Your task to perform on an android device: Show me the alarms in the clock app Image 0: 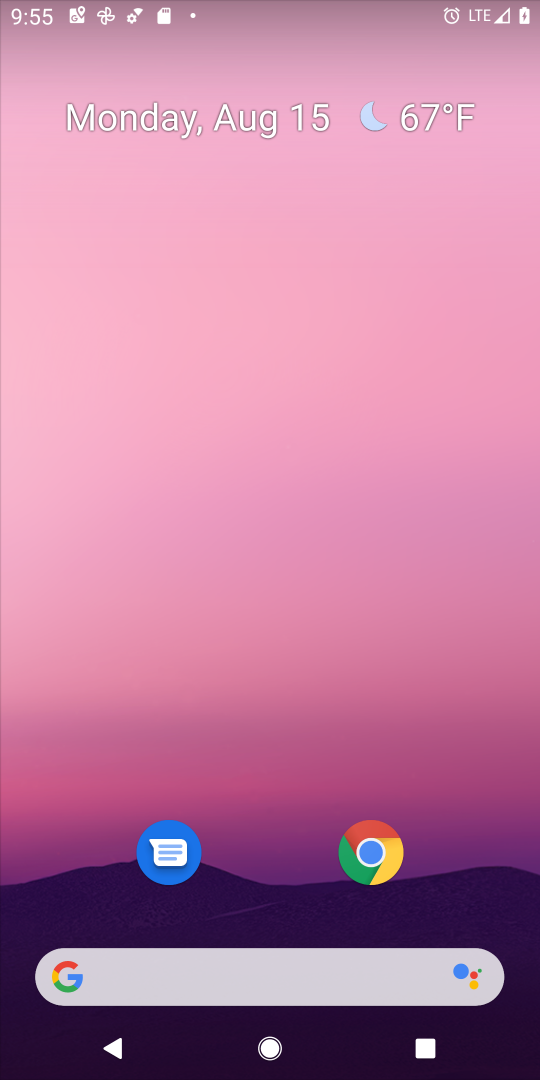
Step 0: drag from (322, 972) to (427, 118)
Your task to perform on an android device: Show me the alarms in the clock app Image 1: 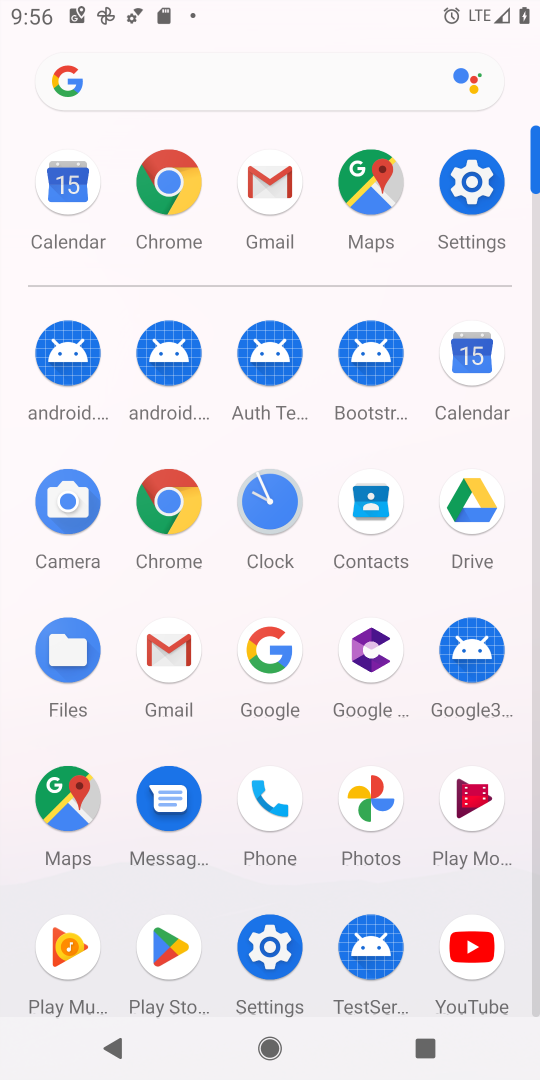
Step 1: click (267, 504)
Your task to perform on an android device: Show me the alarms in the clock app Image 2: 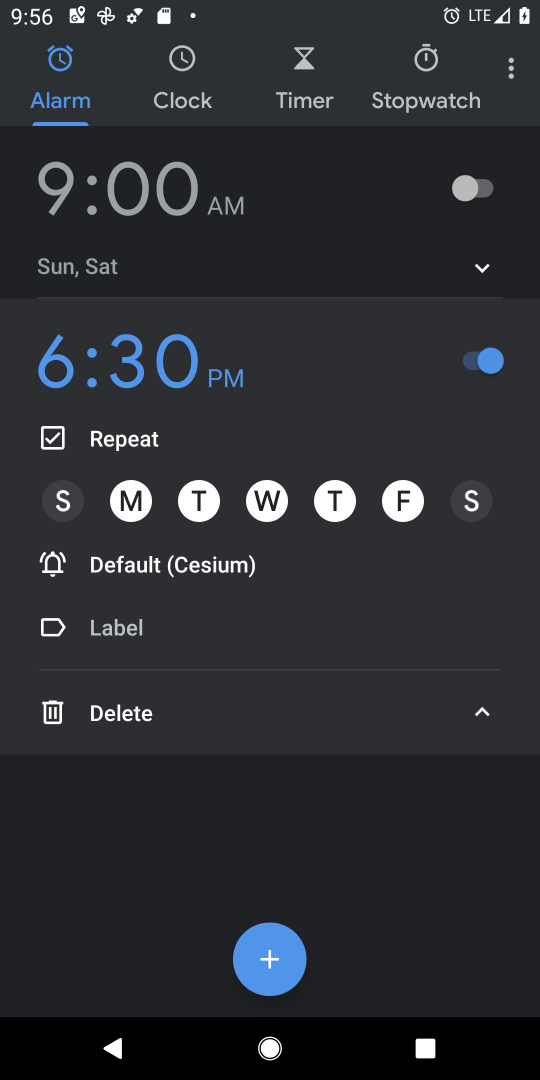
Step 2: click (484, 272)
Your task to perform on an android device: Show me the alarms in the clock app Image 3: 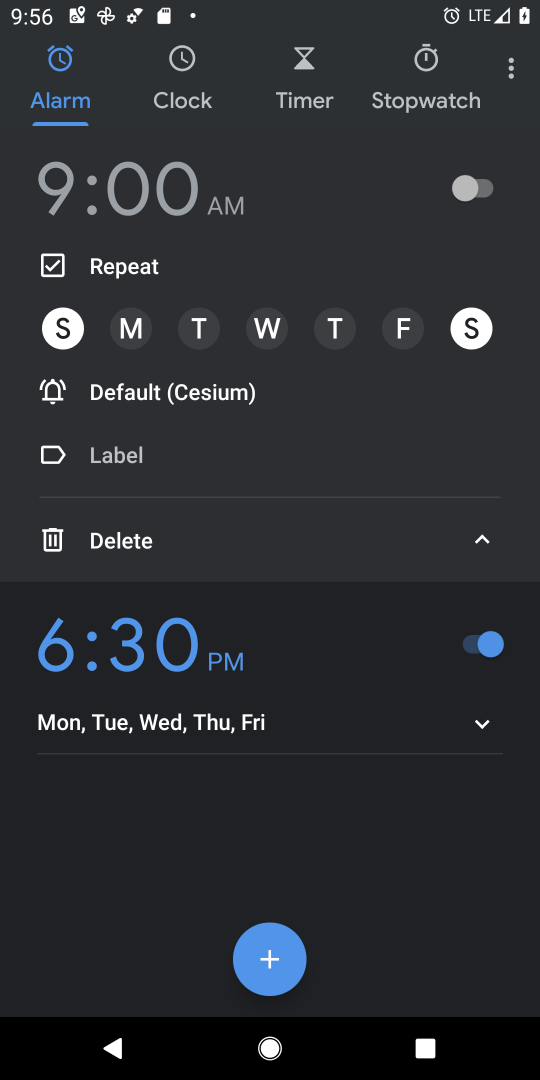
Step 3: click (192, 213)
Your task to perform on an android device: Show me the alarms in the clock app Image 4: 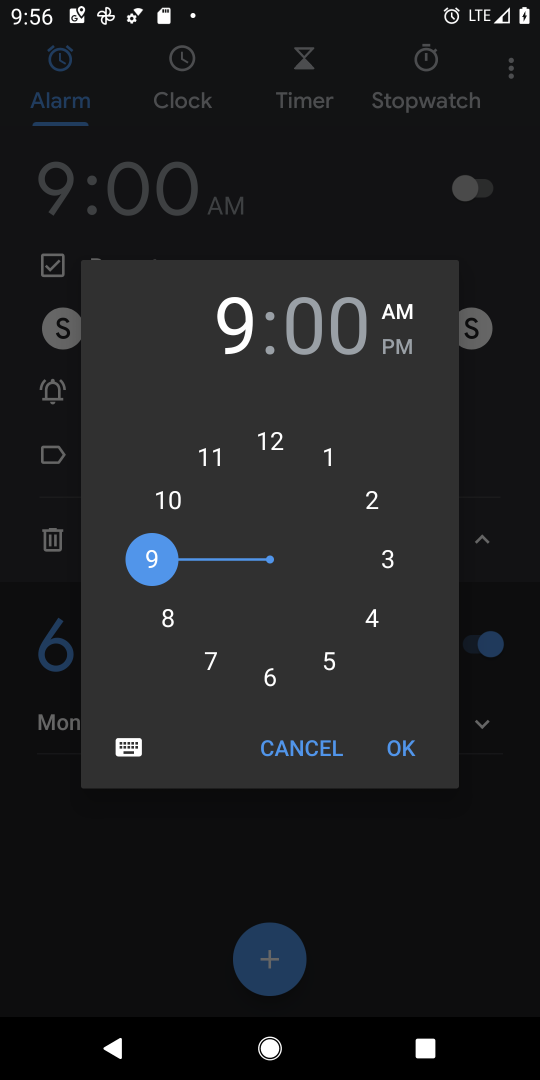
Step 4: click (288, 670)
Your task to perform on an android device: Show me the alarms in the clock app Image 5: 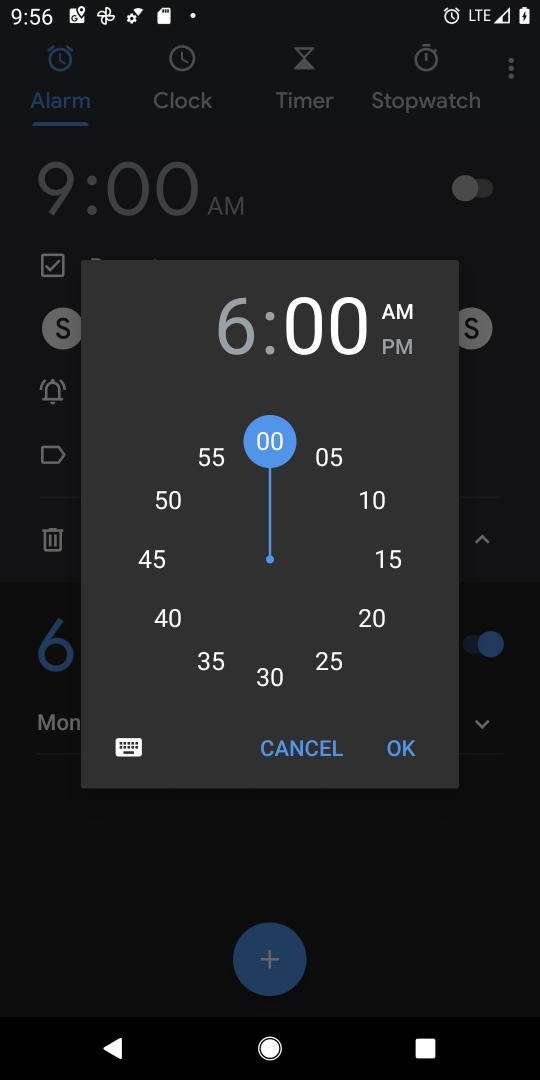
Step 5: click (397, 361)
Your task to perform on an android device: Show me the alarms in the clock app Image 6: 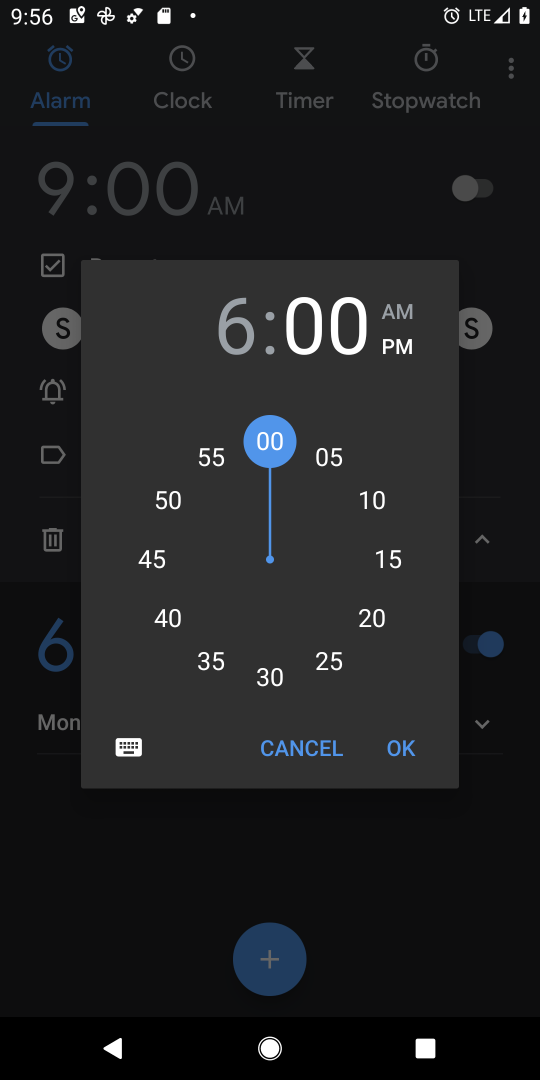
Step 6: click (380, 491)
Your task to perform on an android device: Show me the alarms in the clock app Image 7: 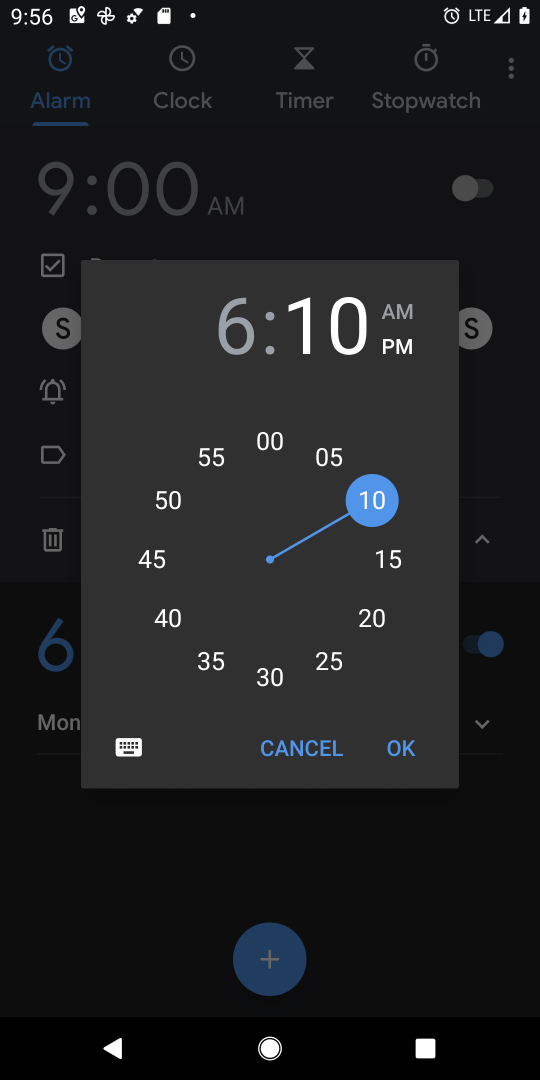
Step 7: click (418, 747)
Your task to perform on an android device: Show me the alarms in the clock app Image 8: 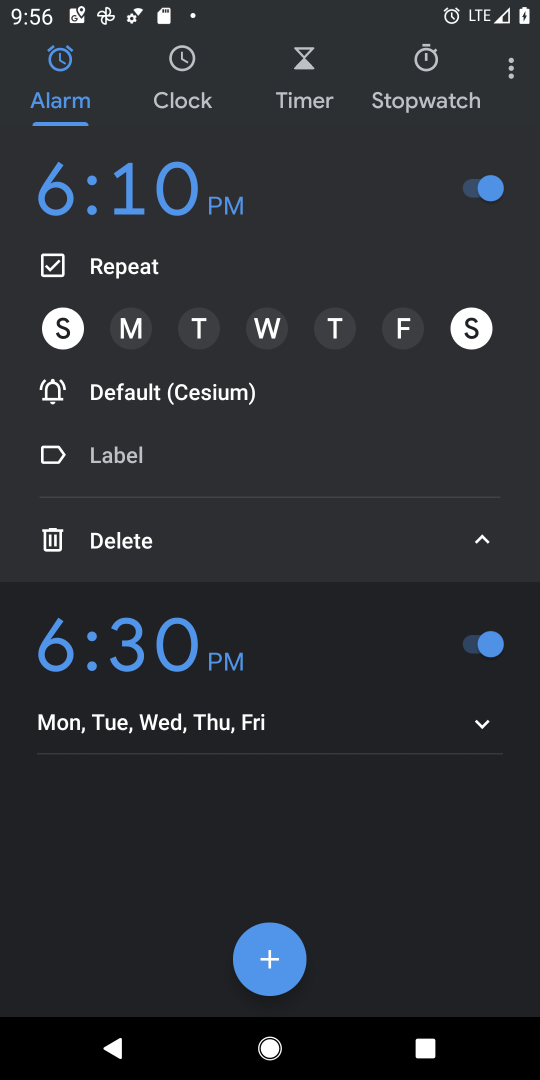
Step 8: task complete